Your task to perform on an android device: set the timer Image 0: 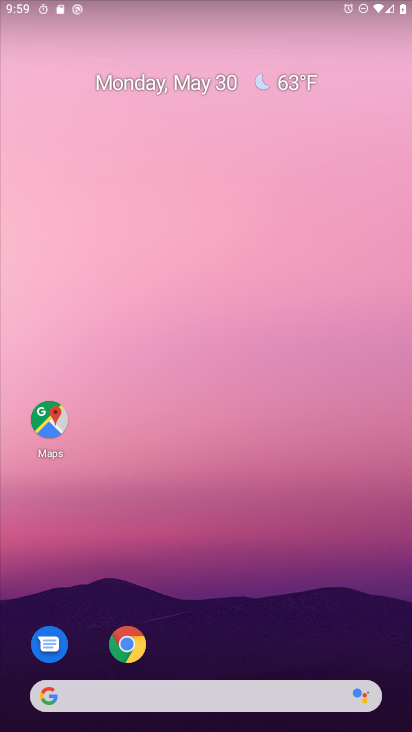
Step 0: drag from (218, 621) to (228, 42)
Your task to perform on an android device: set the timer Image 1: 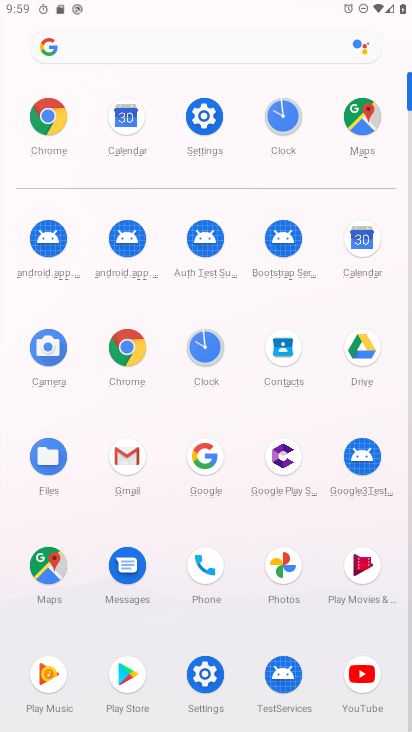
Step 1: click (203, 348)
Your task to perform on an android device: set the timer Image 2: 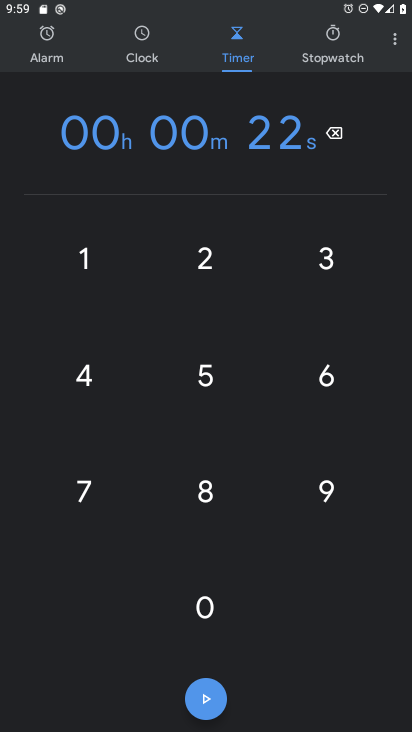
Step 2: click (209, 699)
Your task to perform on an android device: set the timer Image 3: 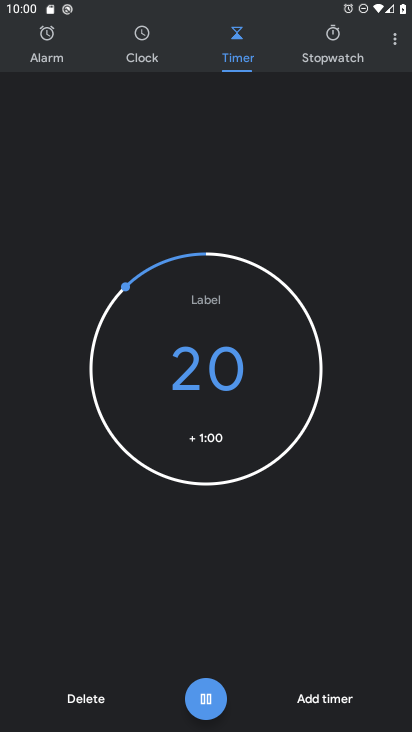
Step 3: click (209, 699)
Your task to perform on an android device: set the timer Image 4: 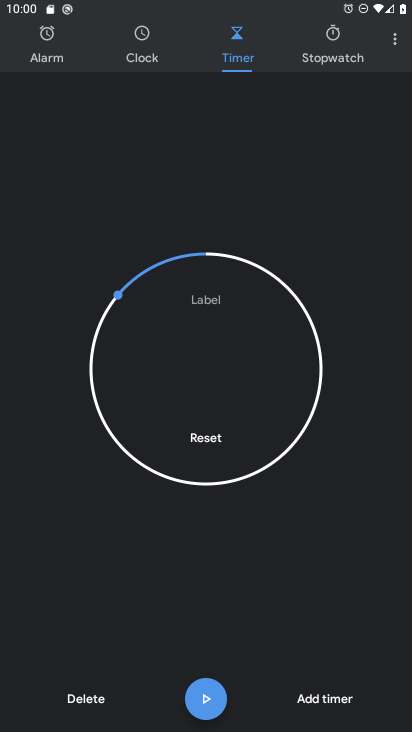
Step 4: task complete